Your task to perform on an android device: Open internet settings Image 0: 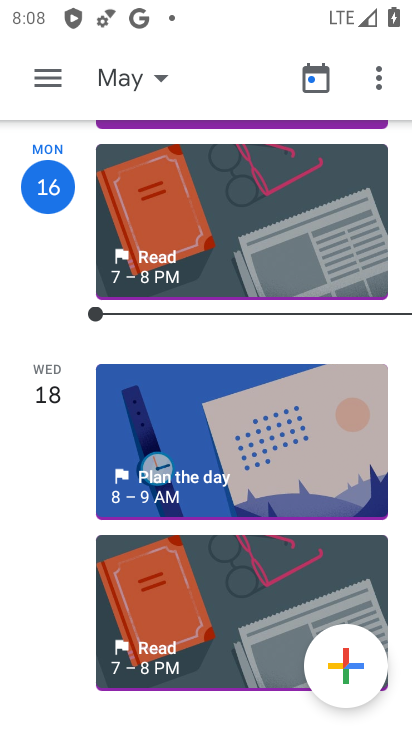
Step 0: press back button
Your task to perform on an android device: Open internet settings Image 1: 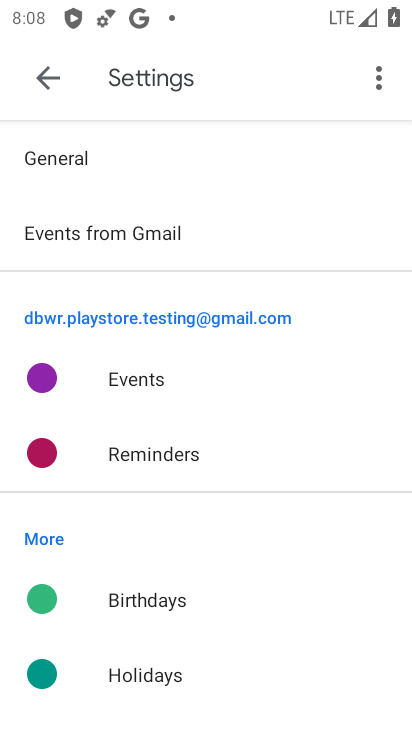
Step 1: press back button
Your task to perform on an android device: Open internet settings Image 2: 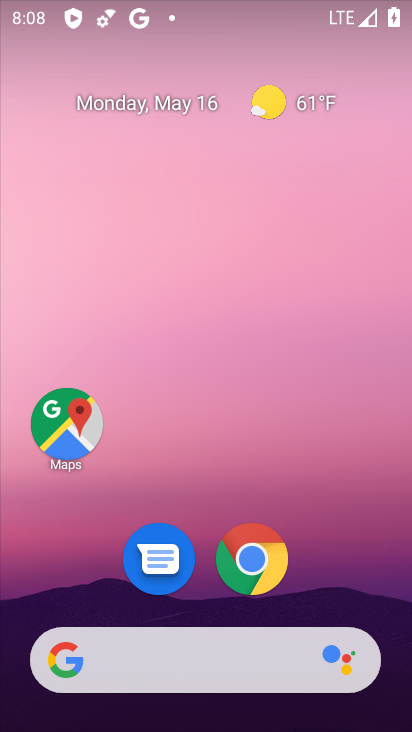
Step 2: drag from (196, 620) to (288, 60)
Your task to perform on an android device: Open internet settings Image 3: 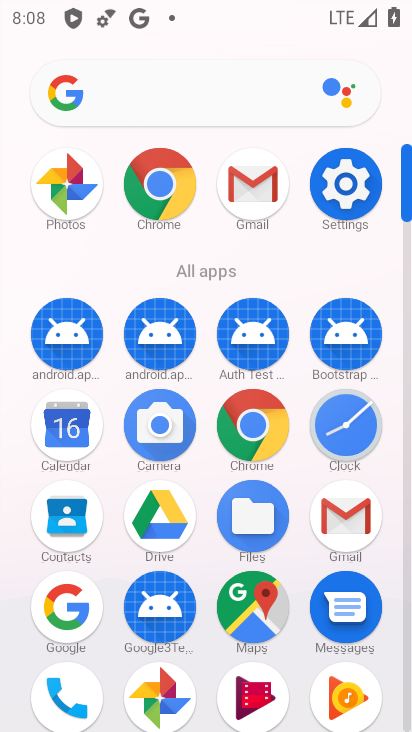
Step 3: click (362, 182)
Your task to perform on an android device: Open internet settings Image 4: 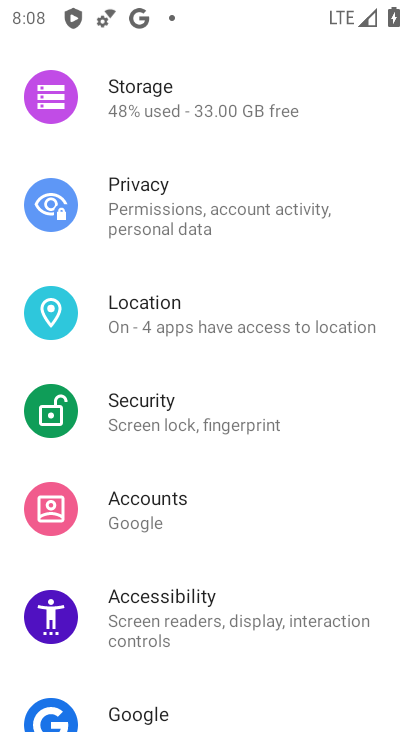
Step 4: drag from (274, 169) to (157, 703)
Your task to perform on an android device: Open internet settings Image 5: 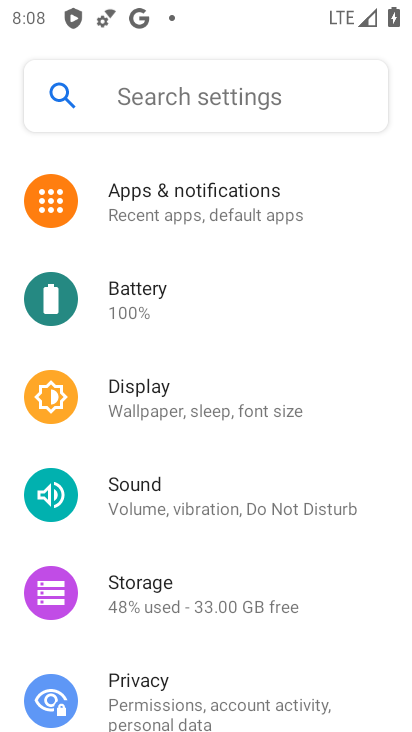
Step 5: drag from (179, 303) to (186, 730)
Your task to perform on an android device: Open internet settings Image 6: 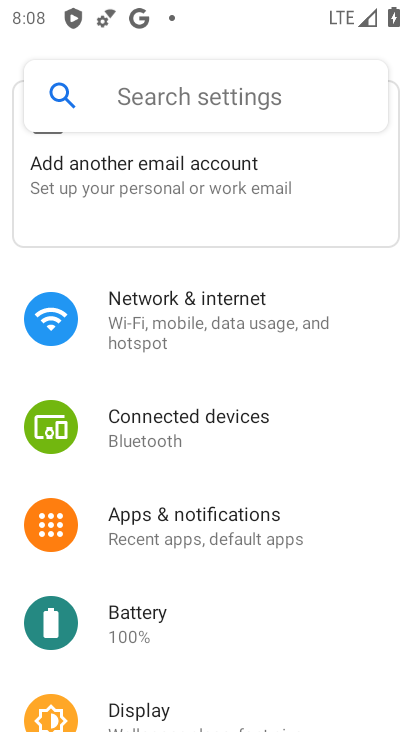
Step 6: click (194, 327)
Your task to perform on an android device: Open internet settings Image 7: 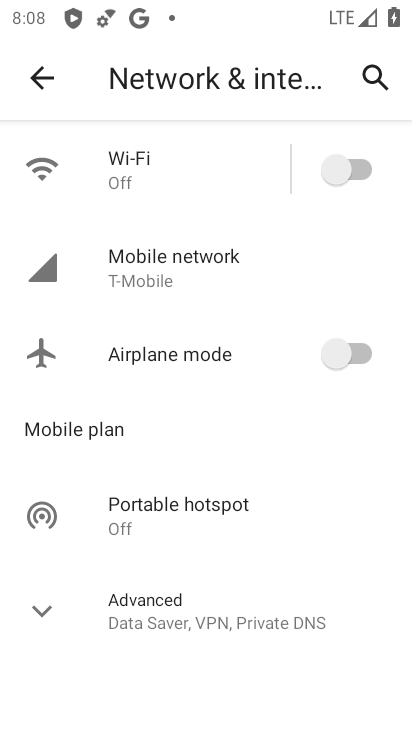
Step 7: task complete